Your task to perform on an android device: open a new tab in the chrome app Image 0: 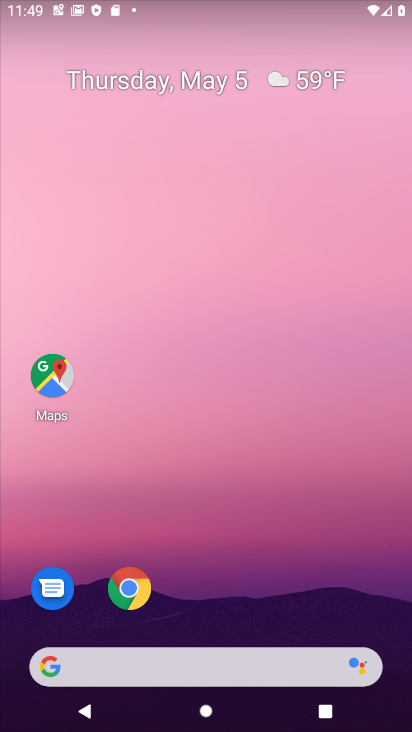
Step 0: drag from (194, 628) to (298, 160)
Your task to perform on an android device: open a new tab in the chrome app Image 1: 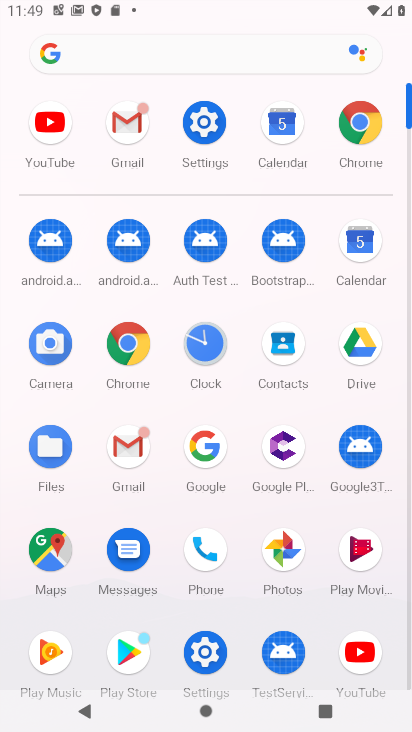
Step 1: click (361, 133)
Your task to perform on an android device: open a new tab in the chrome app Image 2: 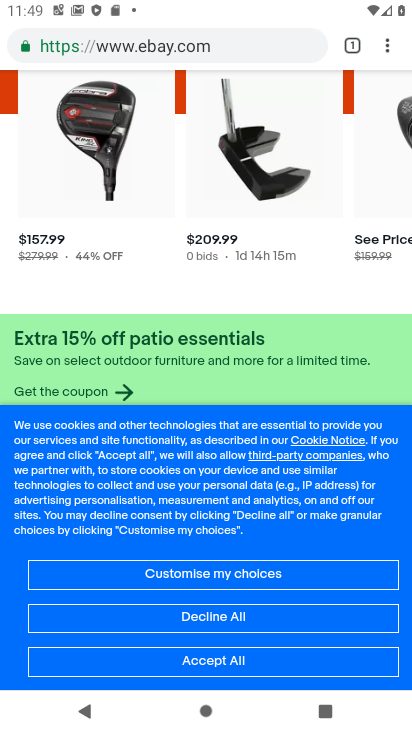
Step 2: drag from (388, 45) to (281, 89)
Your task to perform on an android device: open a new tab in the chrome app Image 3: 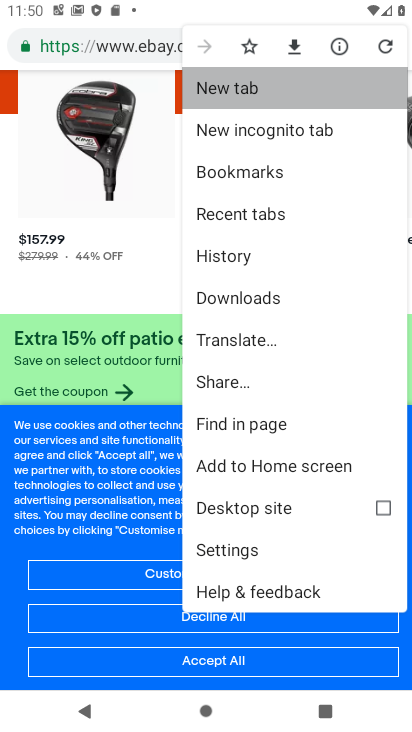
Step 3: click (281, 90)
Your task to perform on an android device: open a new tab in the chrome app Image 4: 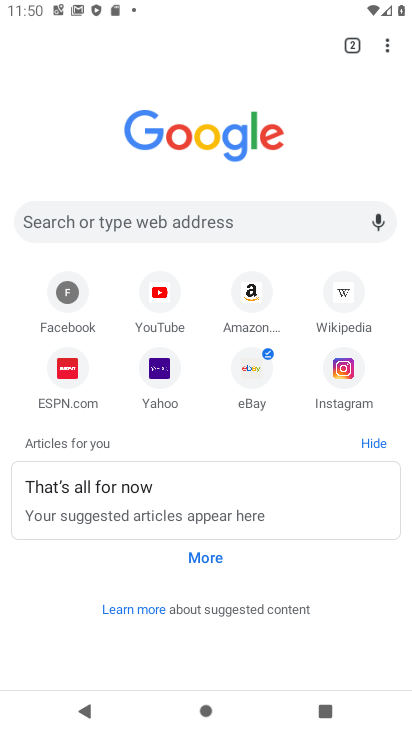
Step 4: task complete